Your task to perform on an android device: open chrome privacy settings Image 0: 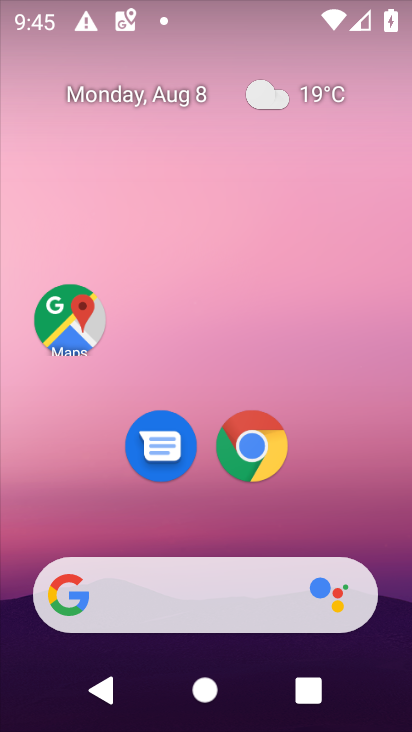
Step 0: click (256, 437)
Your task to perform on an android device: open chrome privacy settings Image 1: 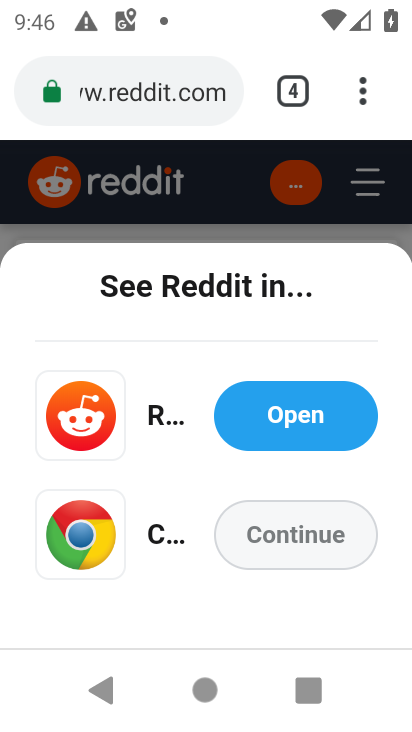
Step 1: click (362, 101)
Your task to perform on an android device: open chrome privacy settings Image 2: 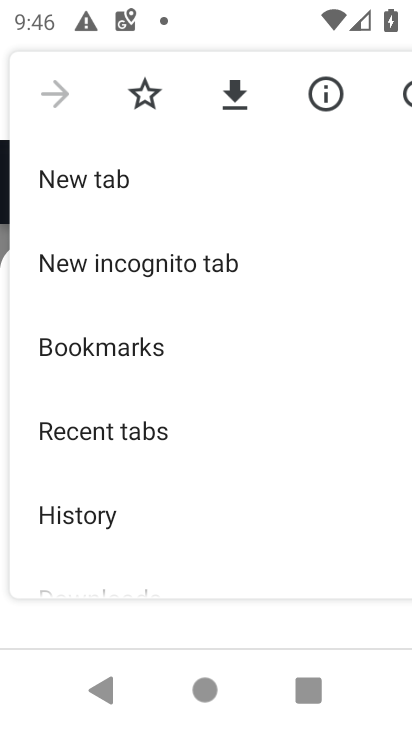
Step 2: drag from (248, 546) to (250, 252)
Your task to perform on an android device: open chrome privacy settings Image 3: 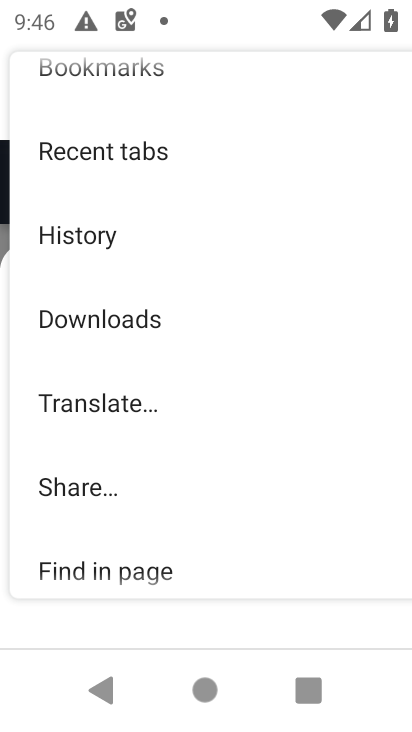
Step 3: drag from (212, 525) to (221, 218)
Your task to perform on an android device: open chrome privacy settings Image 4: 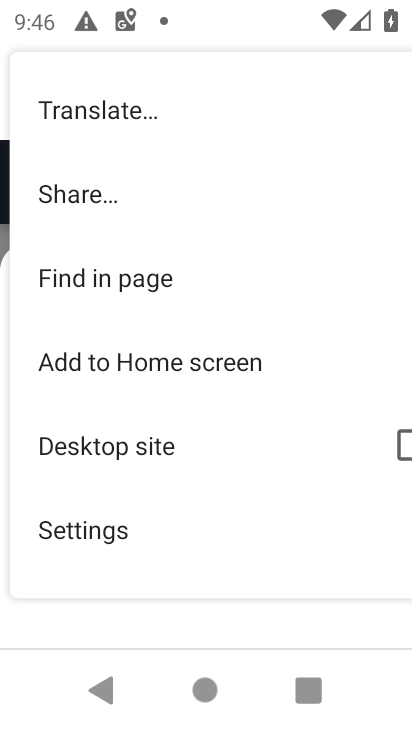
Step 4: click (94, 536)
Your task to perform on an android device: open chrome privacy settings Image 5: 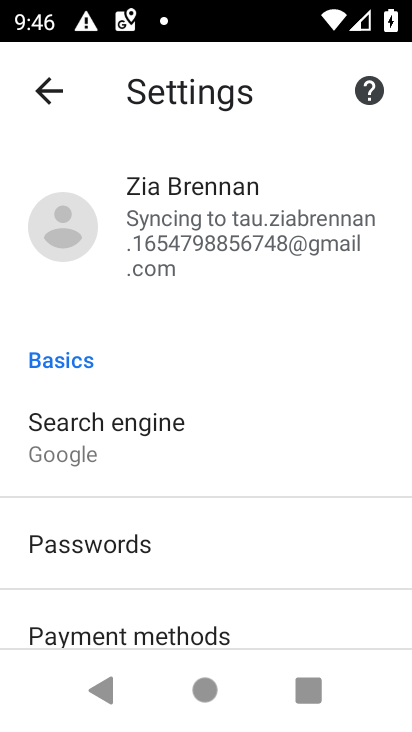
Step 5: drag from (249, 604) to (279, 273)
Your task to perform on an android device: open chrome privacy settings Image 6: 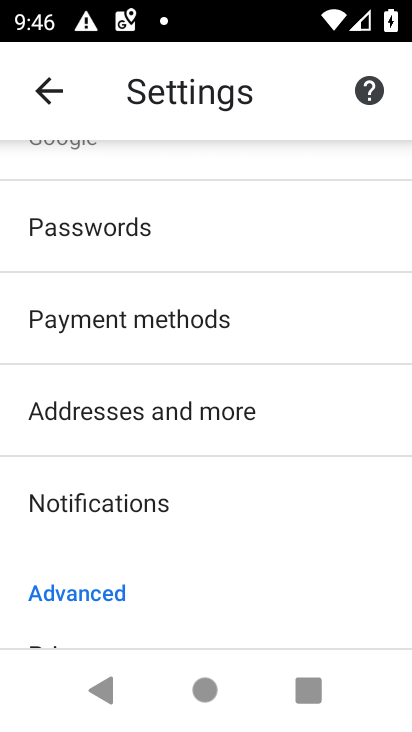
Step 6: drag from (132, 613) to (147, 262)
Your task to perform on an android device: open chrome privacy settings Image 7: 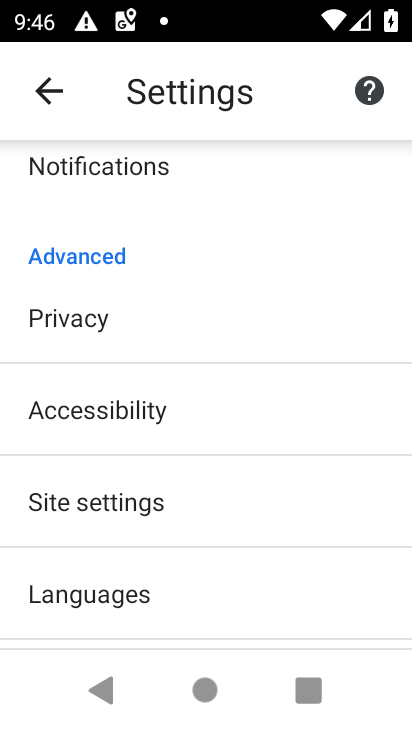
Step 7: click (72, 312)
Your task to perform on an android device: open chrome privacy settings Image 8: 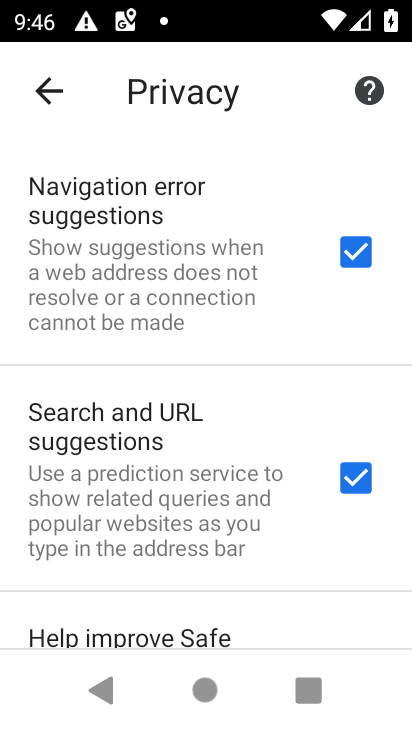
Step 8: task complete